Your task to perform on an android device: Show me the alarms in the clock app Image 0: 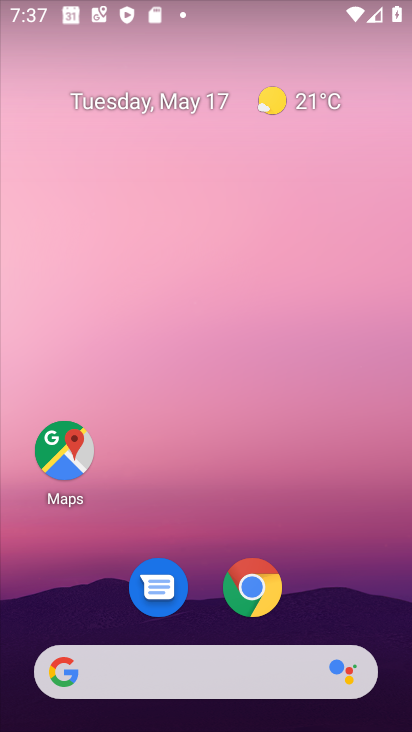
Step 0: drag from (373, 599) to (392, 128)
Your task to perform on an android device: Show me the alarms in the clock app Image 1: 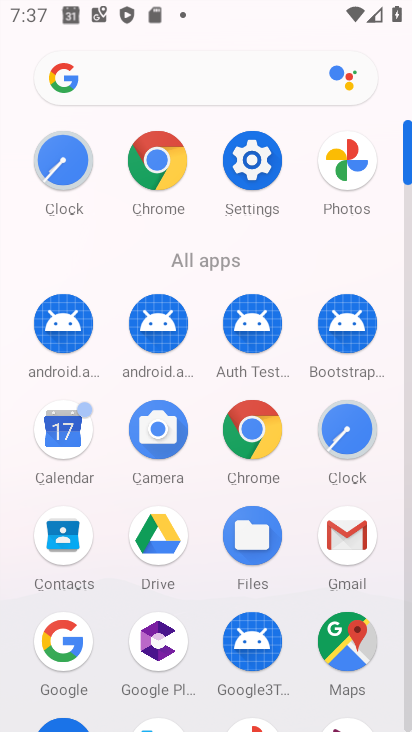
Step 1: click (361, 430)
Your task to perform on an android device: Show me the alarms in the clock app Image 2: 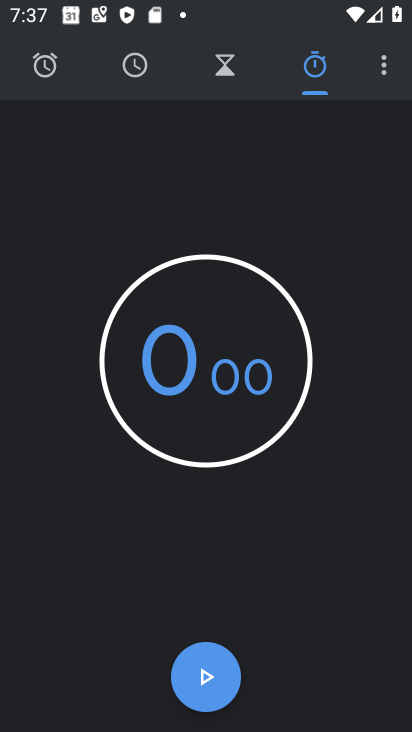
Step 2: click (56, 63)
Your task to perform on an android device: Show me the alarms in the clock app Image 3: 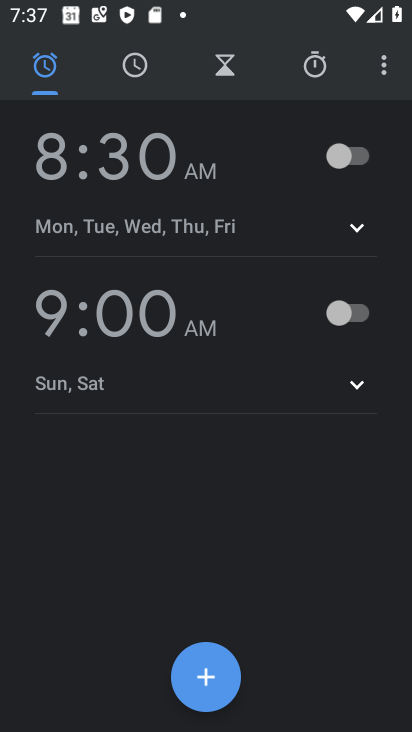
Step 3: task complete